Your task to perform on an android device: Go to settings Image 0: 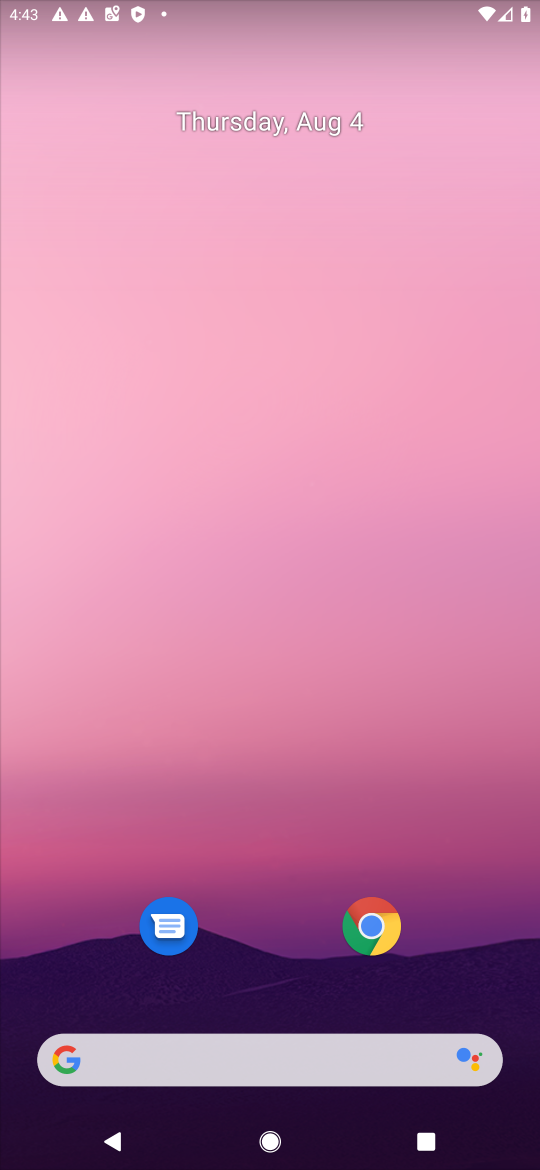
Step 0: press home button
Your task to perform on an android device: Go to settings Image 1: 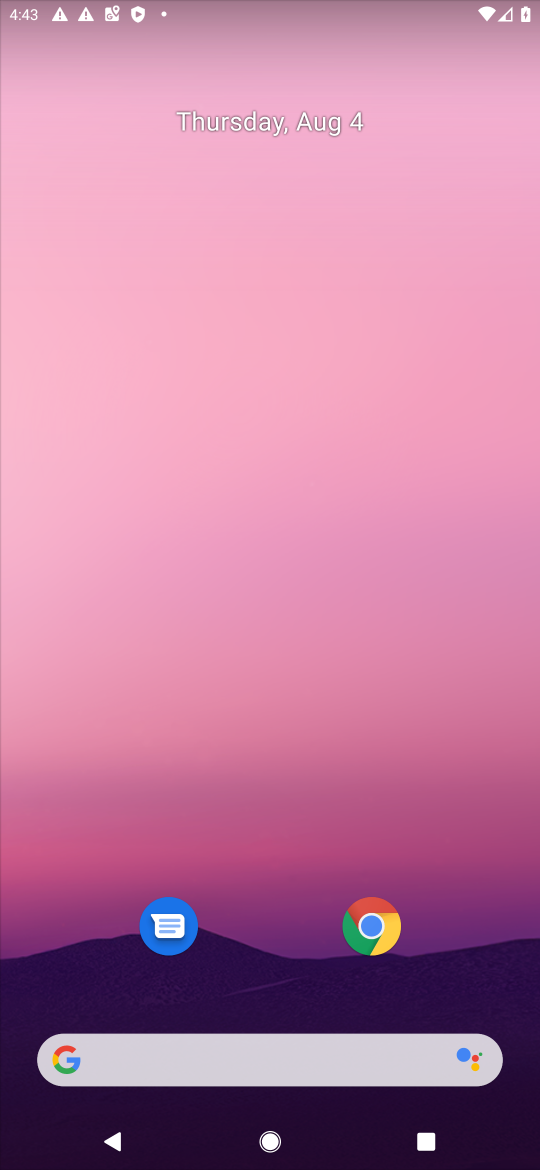
Step 1: drag from (270, 980) to (372, 339)
Your task to perform on an android device: Go to settings Image 2: 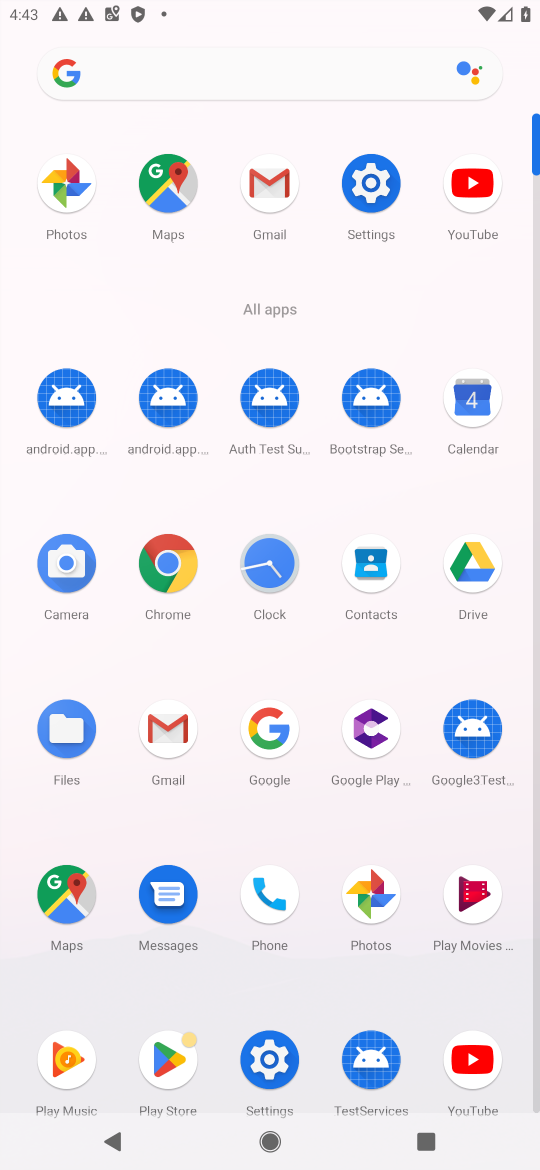
Step 2: click (376, 201)
Your task to perform on an android device: Go to settings Image 3: 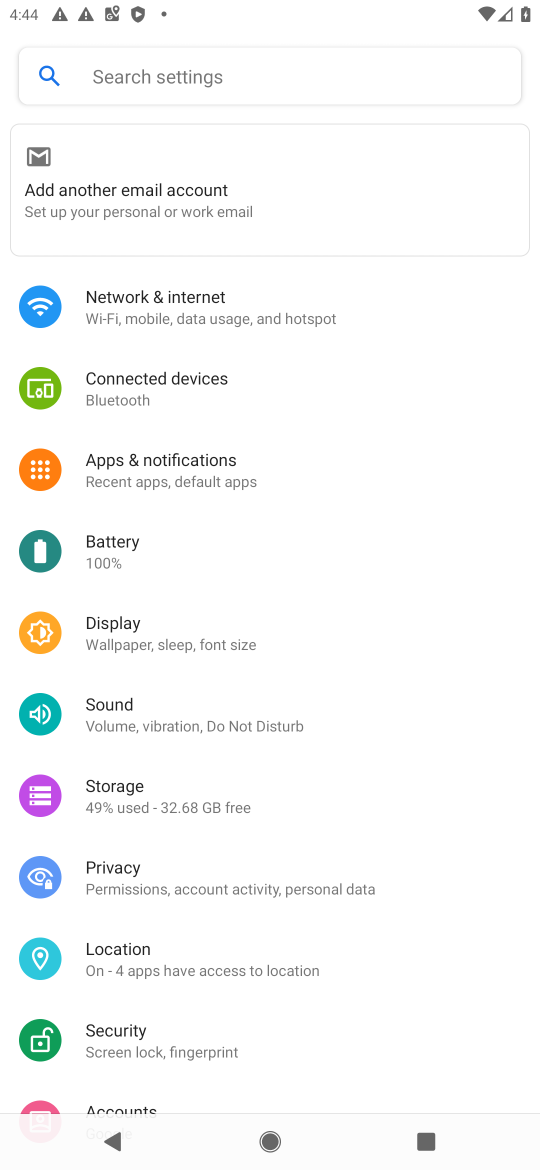
Step 3: task complete